Your task to perform on an android device: turn off smart reply in the gmail app Image 0: 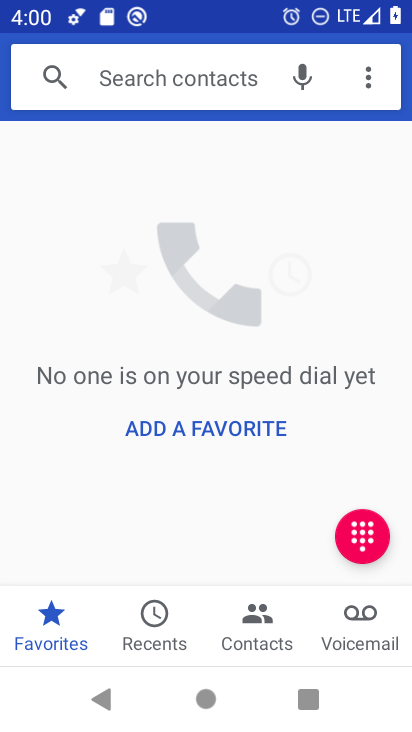
Step 0: press home button
Your task to perform on an android device: turn off smart reply in the gmail app Image 1: 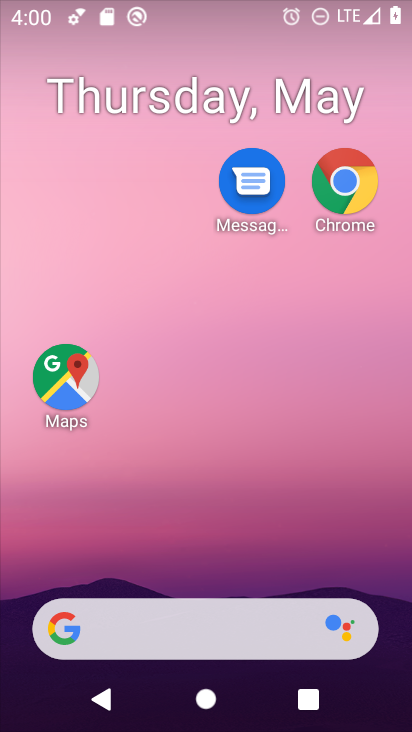
Step 1: drag from (286, 632) to (343, 14)
Your task to perform on an android device: turn off smart reply in the gmail app Image 2: 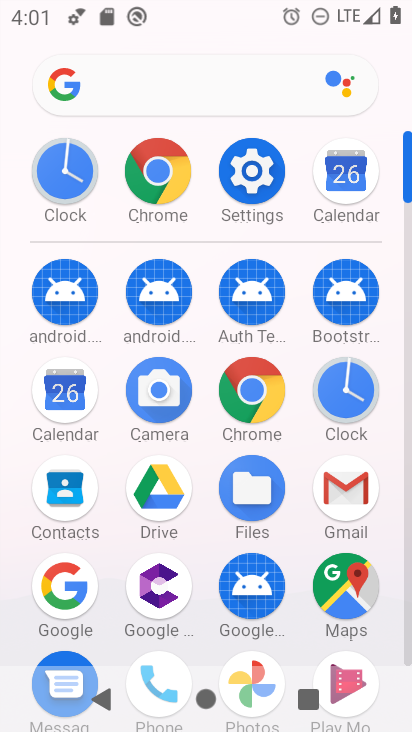
Step 2: click (327, 498)
Your task to perform on an android device: turn off smart reply in the gmail app Image 3: 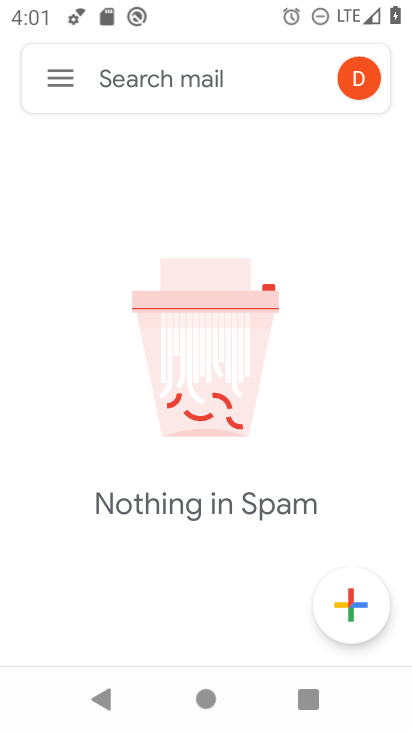
Step 3: click (67, 76)
Your task to perform on an android device: turn off smart reply in the gmail app Image 4: 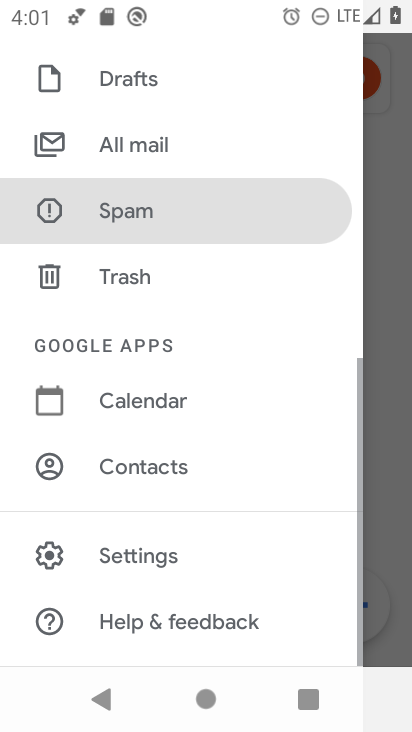
Step 4: drag from (207, 576) to (237, 268)
Your task to perform on an android device: turn off smart reply in the gmail app Image 5: 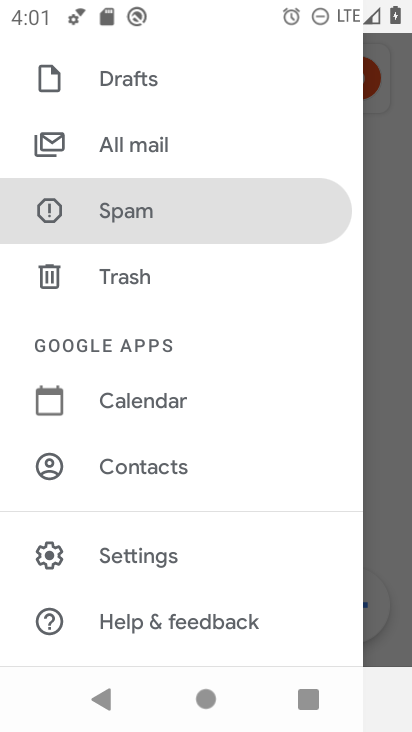
Step 5: click (155, 551)
Your task to perform on an android device: turn off smart reply in the gmail app Image 6: 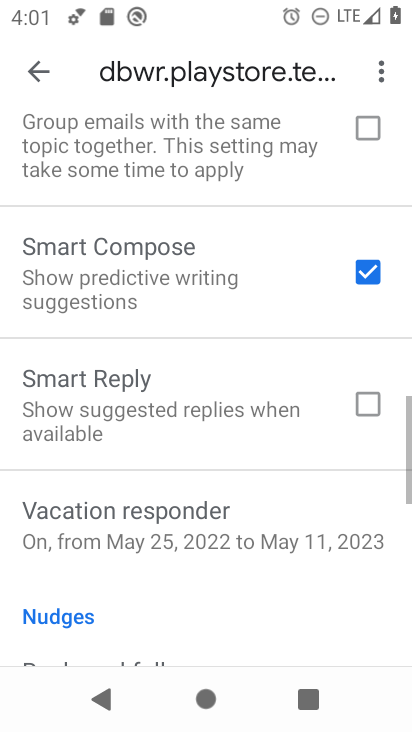
Step 6: drag from (152, 568) to (194, 686)
Your task to perform on an android device: turn off smart reply in the gmail app Image 7: 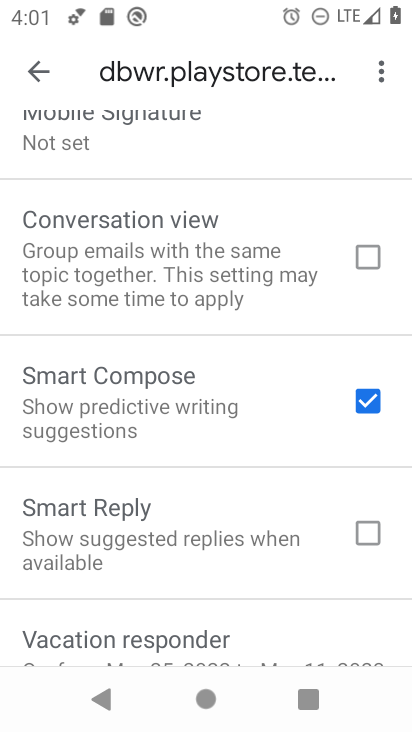
Step 7: click (178, 532)
Your task to perform on an android device: turn off smart reply in the gmail app Image 8: 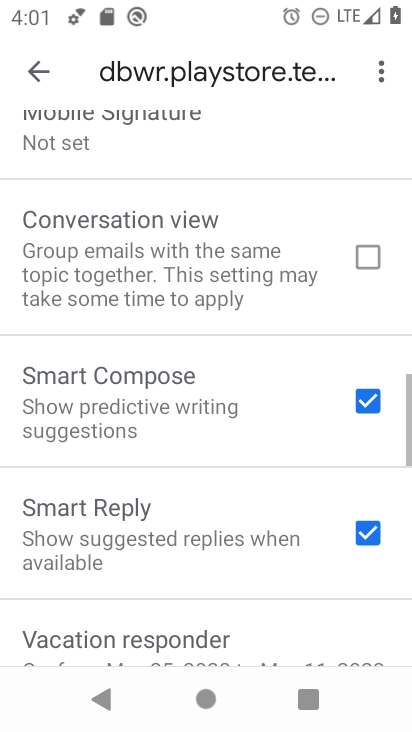
Step 8: click (178, 532)
Your task to perform on an android device: turn off smart reply in the gmail app Image 9: 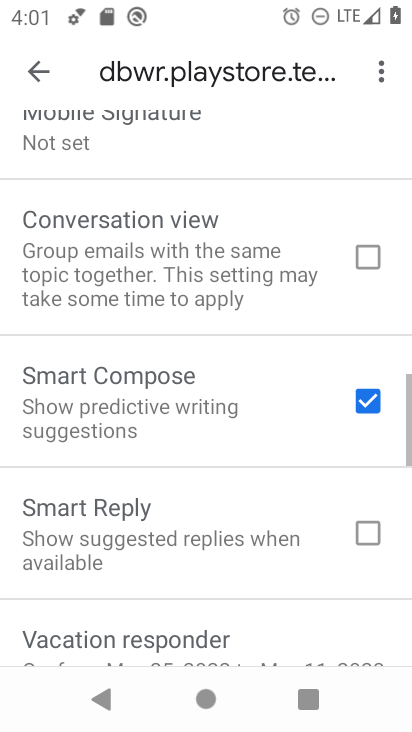
Step 9: task complete